Your task to perform on an android device: check out phone information Image 0: 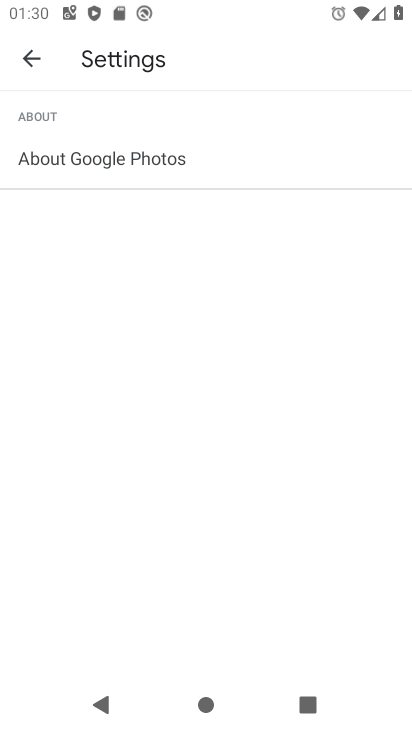
Step 0: press home button
Your task to perform on an android device: check out phone information Image 1: 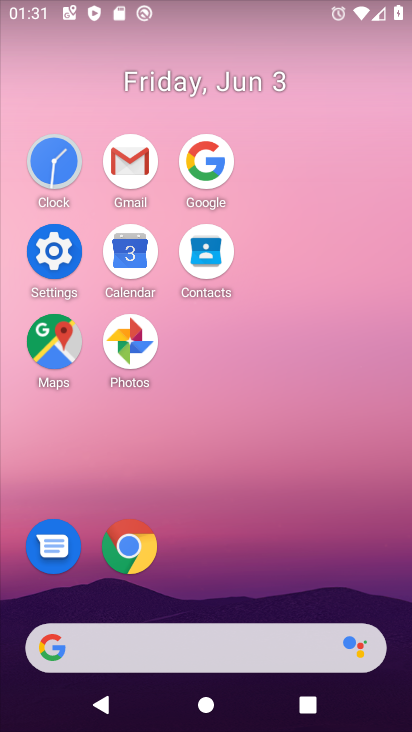
Step 1: click (63, 267)
Your task to perform on an android device: check out phone information Image 2: 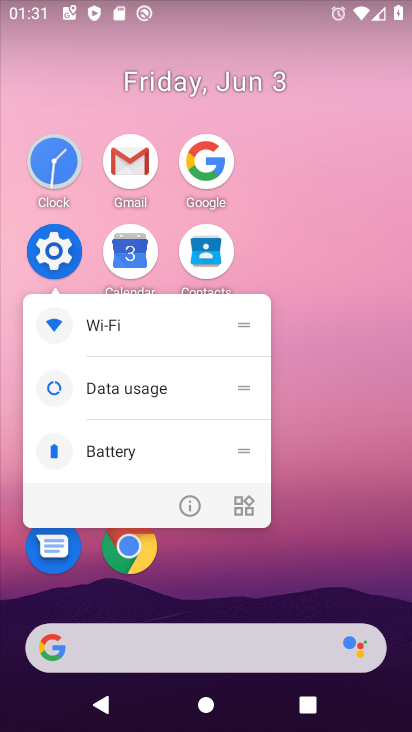
Step 2: click (62, 252)
Your task to perform on an android device: check out phone information Image 3: 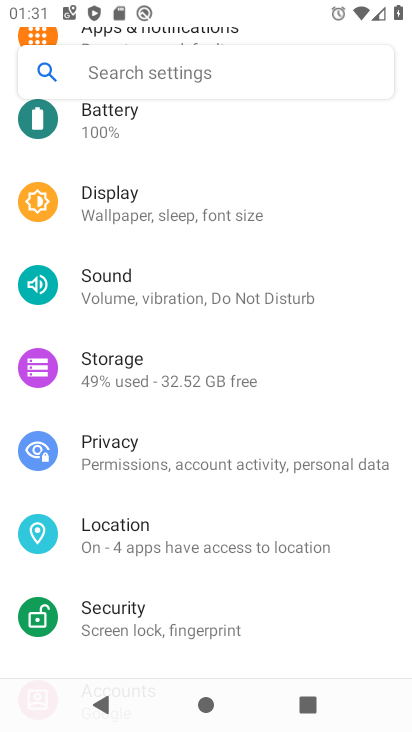
Step 3: drag from (288, 593) to (316, 231)
Your task to perform on an android device: check out phone information Image 4: 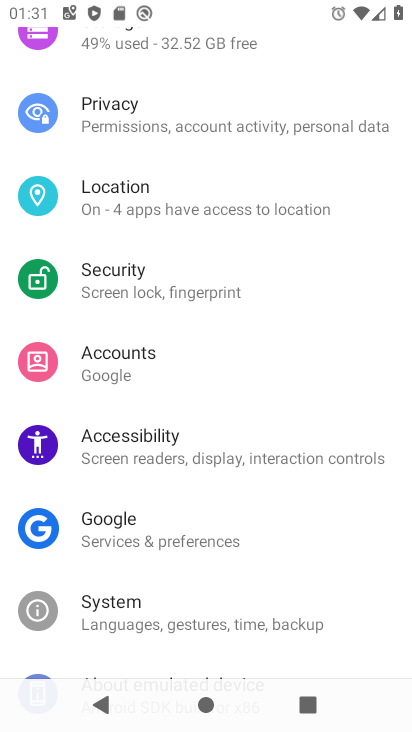
Step 4: drag from (315, 581) to (325, 214)
Your task to perform on an android device: check out phone information Image 5: 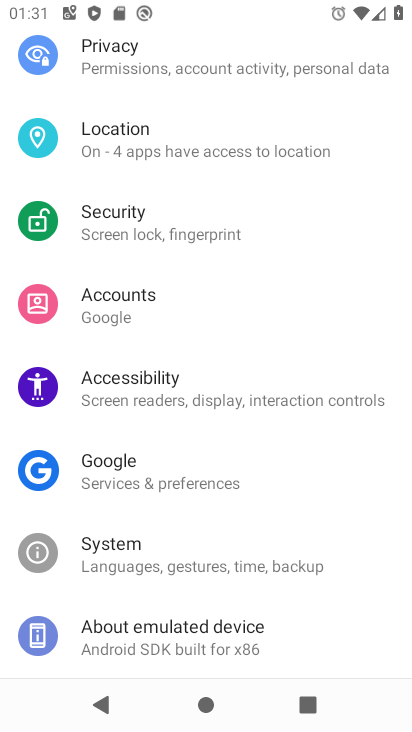
Step 5: click (268, 625)
Your task to perform on an android device: check out phone information Image 6: 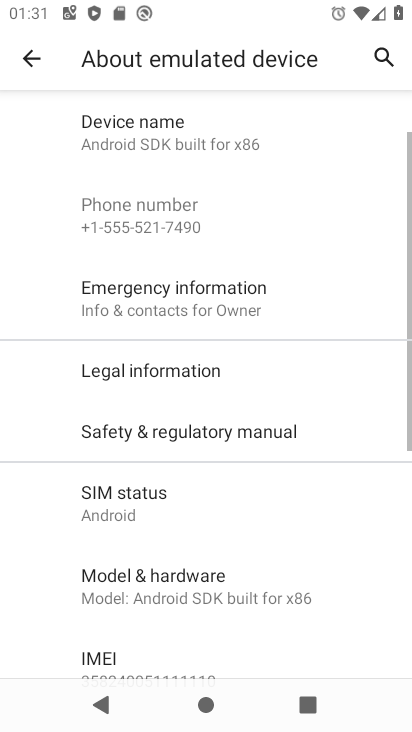
Step 6: drag from (269, 625) to (306, 200)
Your task to perform on an android device: check out phone information Image 7: 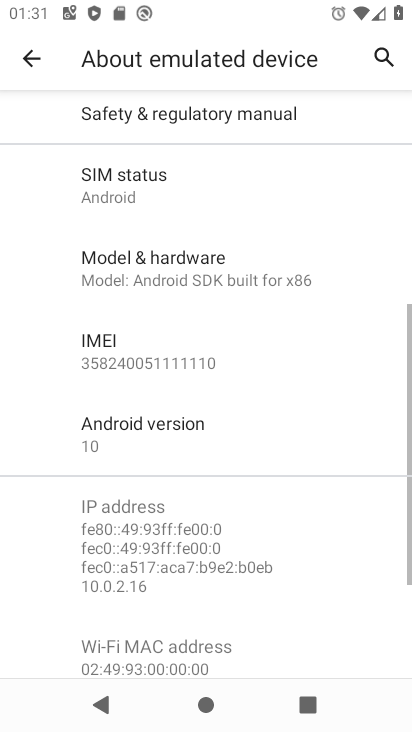
Step 7: click (212, 282)
Your task to perform on an android device: check out phone information Image 8: 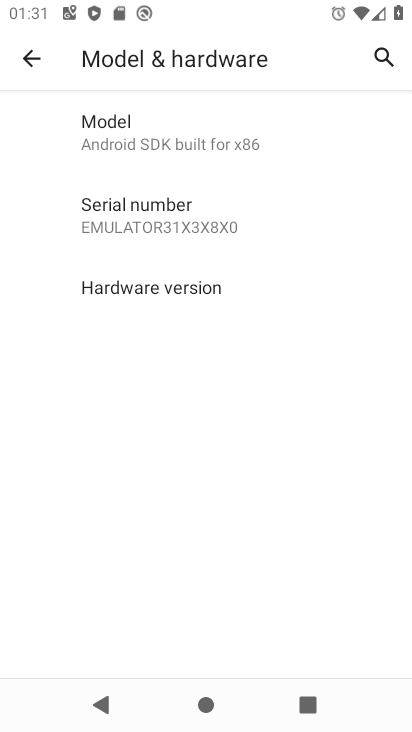
Step 8: task complete